Your task to perform on an android device: What's the weather? Image 0: 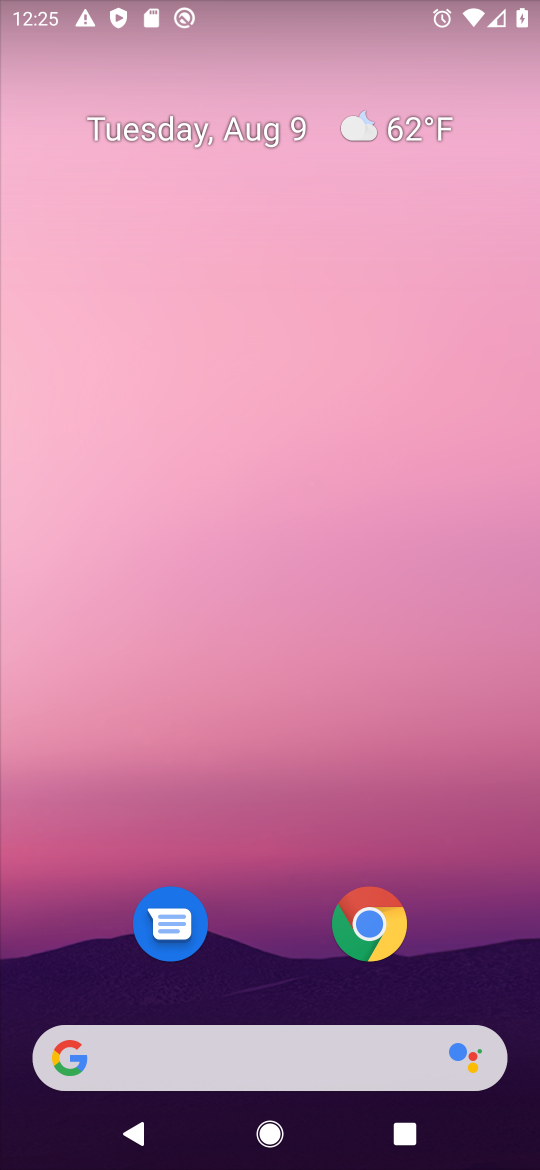
Step 0: drag from (350, 1015) to (319, 115)
Your task to perform on an android device: What's the weather? Image 1: 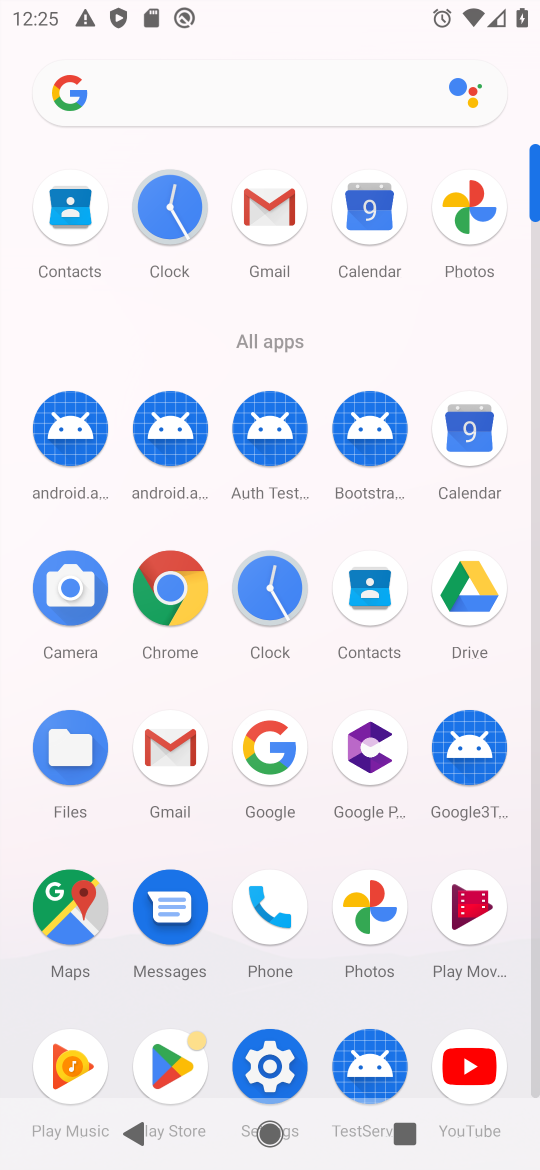
Step 1: click (258, 116)
Your task to perform on an android device: What's the weather? Image 2: 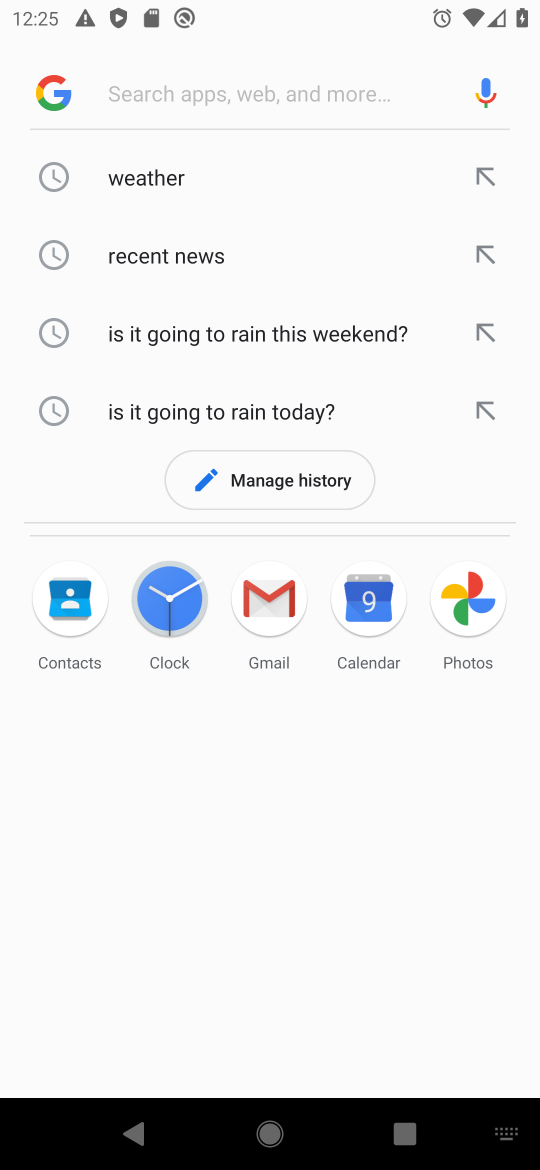
Step 2: click (225, 176)
Your task to perform on an android device: What's the weather? Image 3: 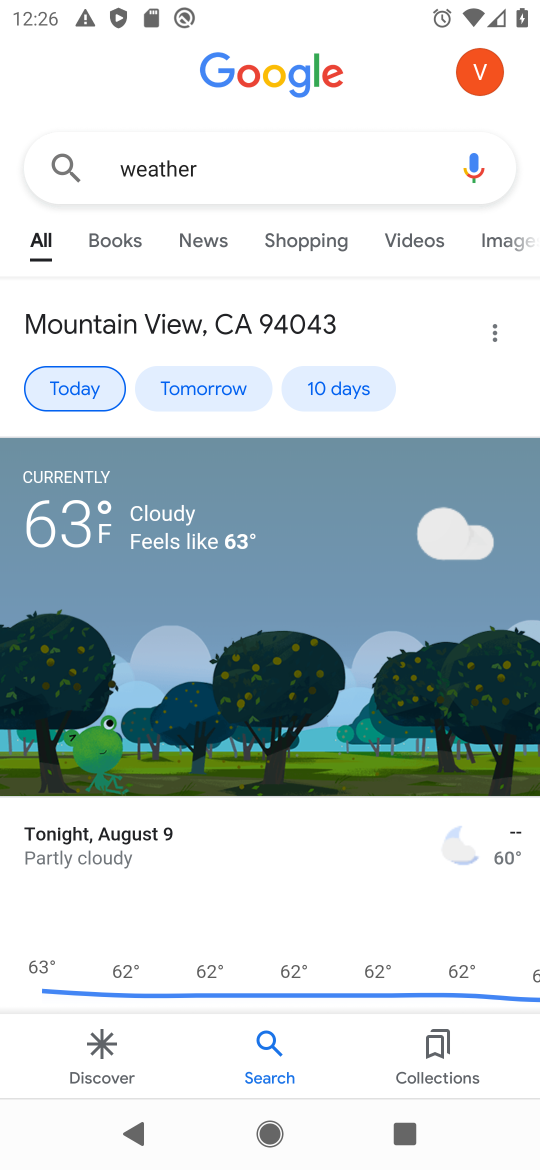
Step 3: task complete